Your task to perform on an android device: Add acer predator to the cart on costco.com, then select checkout. Image 0: 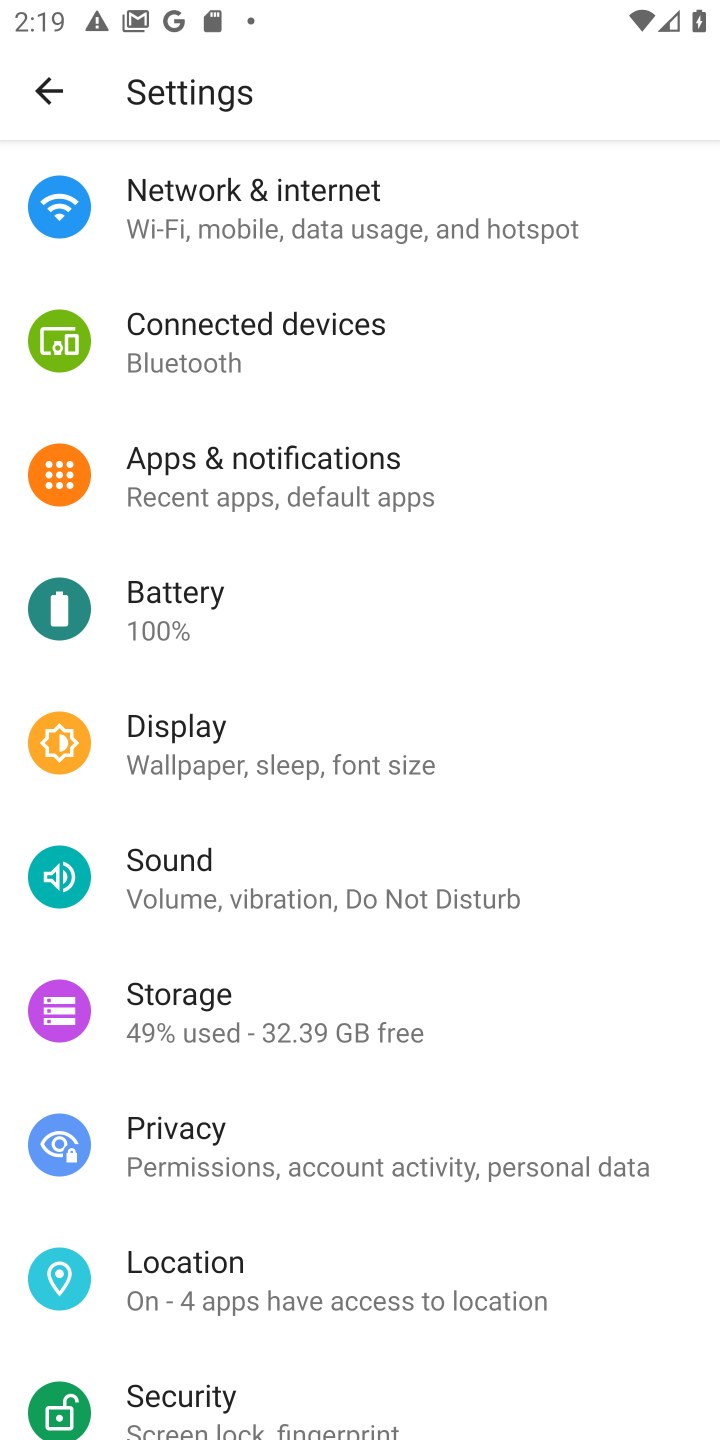
Step 0: press home button
Your task to perform on an android device: Add acer predator to the cart on costco.com, then select checkout. Image 1: 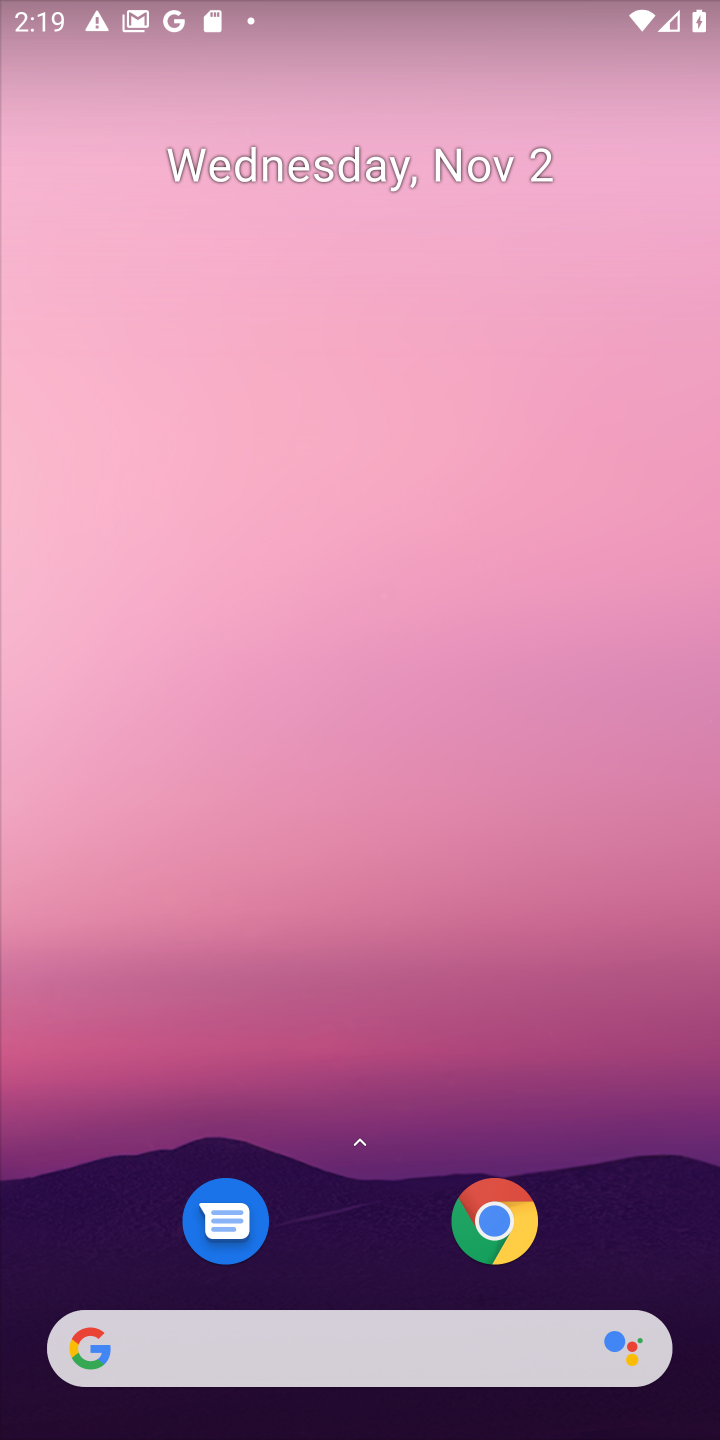
Step 1: click (363, 1367)
Your task to perform on an android device: Add acer predator to the cart on costco.com, then select checkout. Image 2: 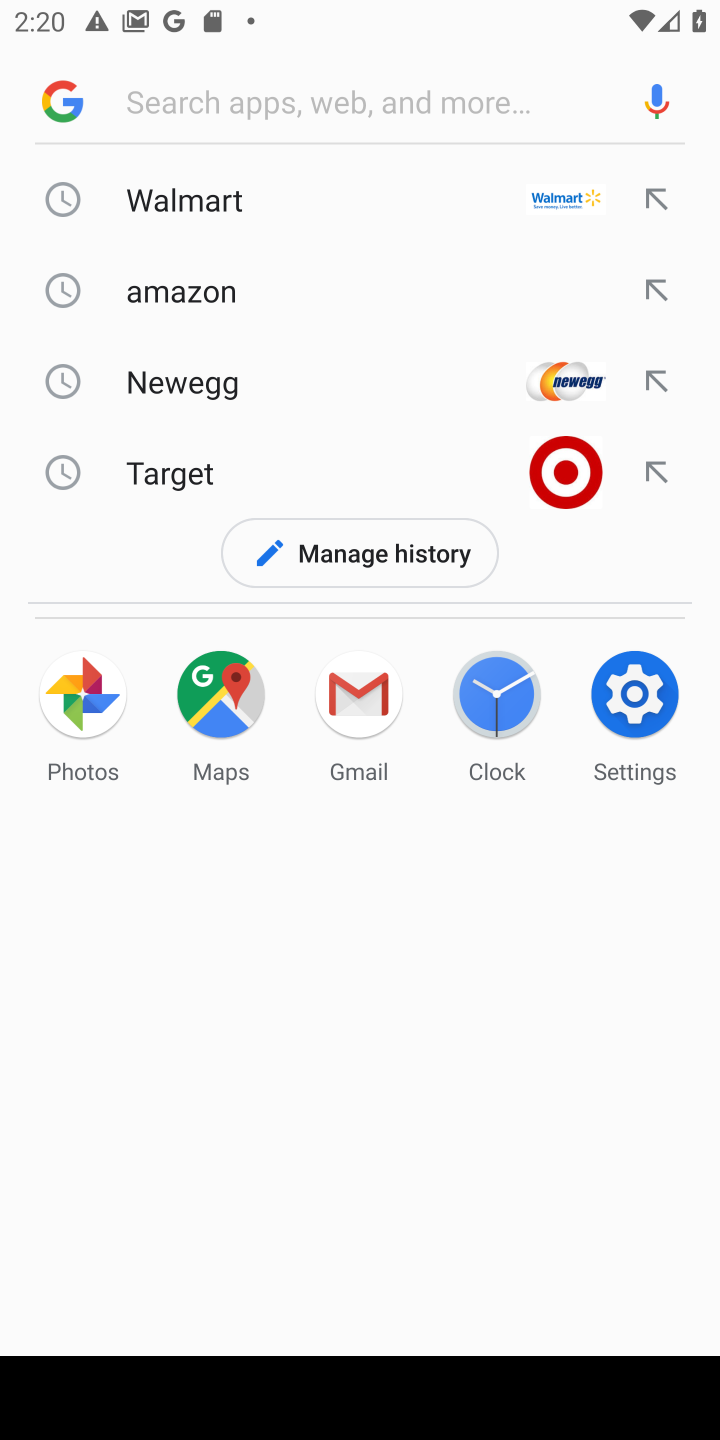
Step 2: type "costco"
Your task to perform on an android device: Add acer predator to the cart on costco.com, then select checkout. Image 3: 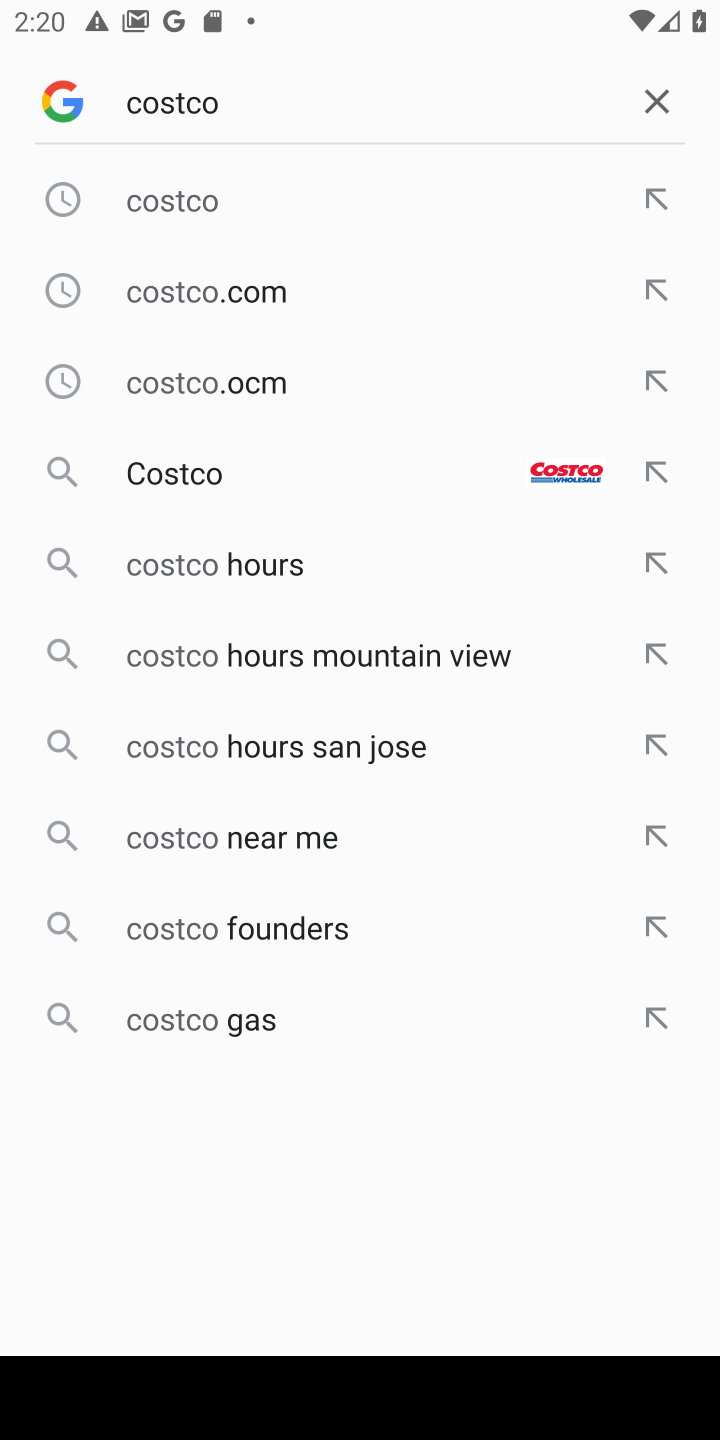
Step 3: click (373, 474)
Your task to perform on an android device: Add acer predator to the cart on costco.com, then select checkout. Image 4: 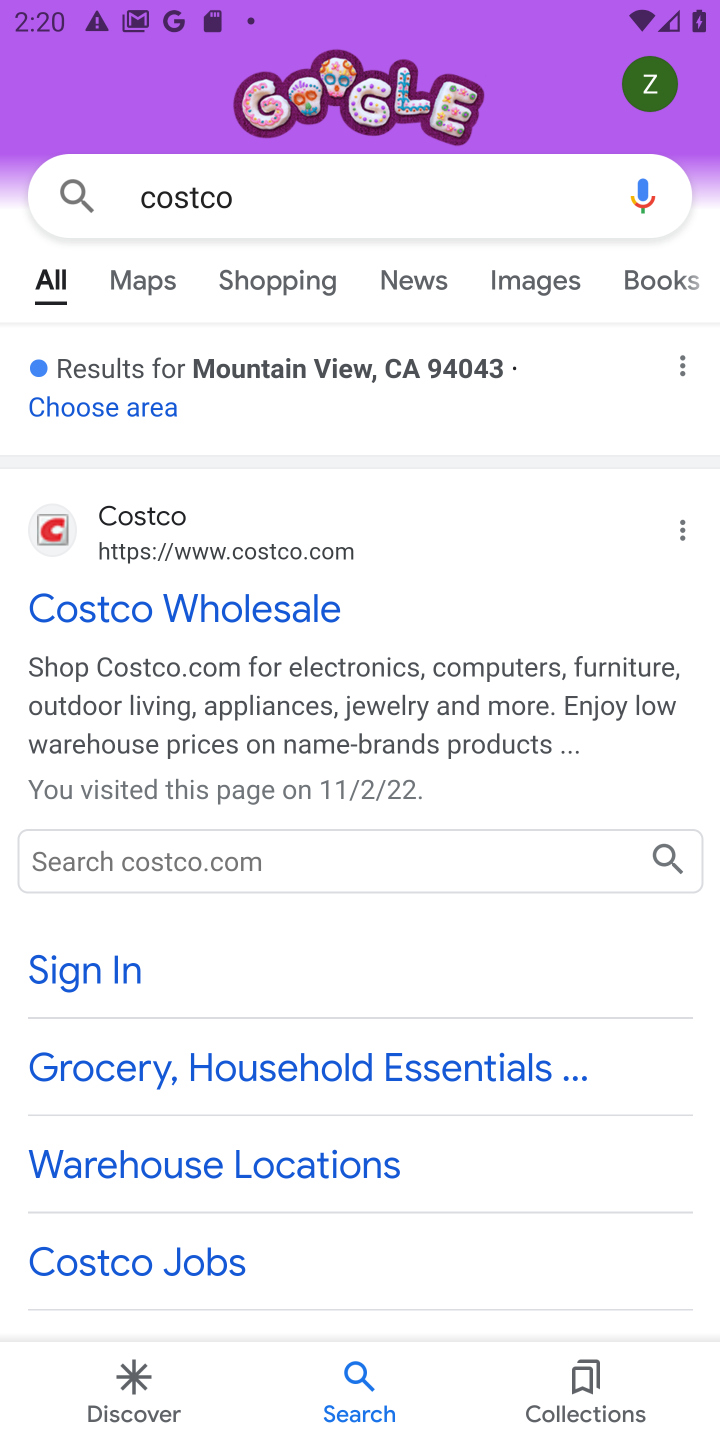
Step 4: click (305, 615)
Your task to perform on an android device: Add acer predator to the cart on costco.com, then select checkout. Image 5: 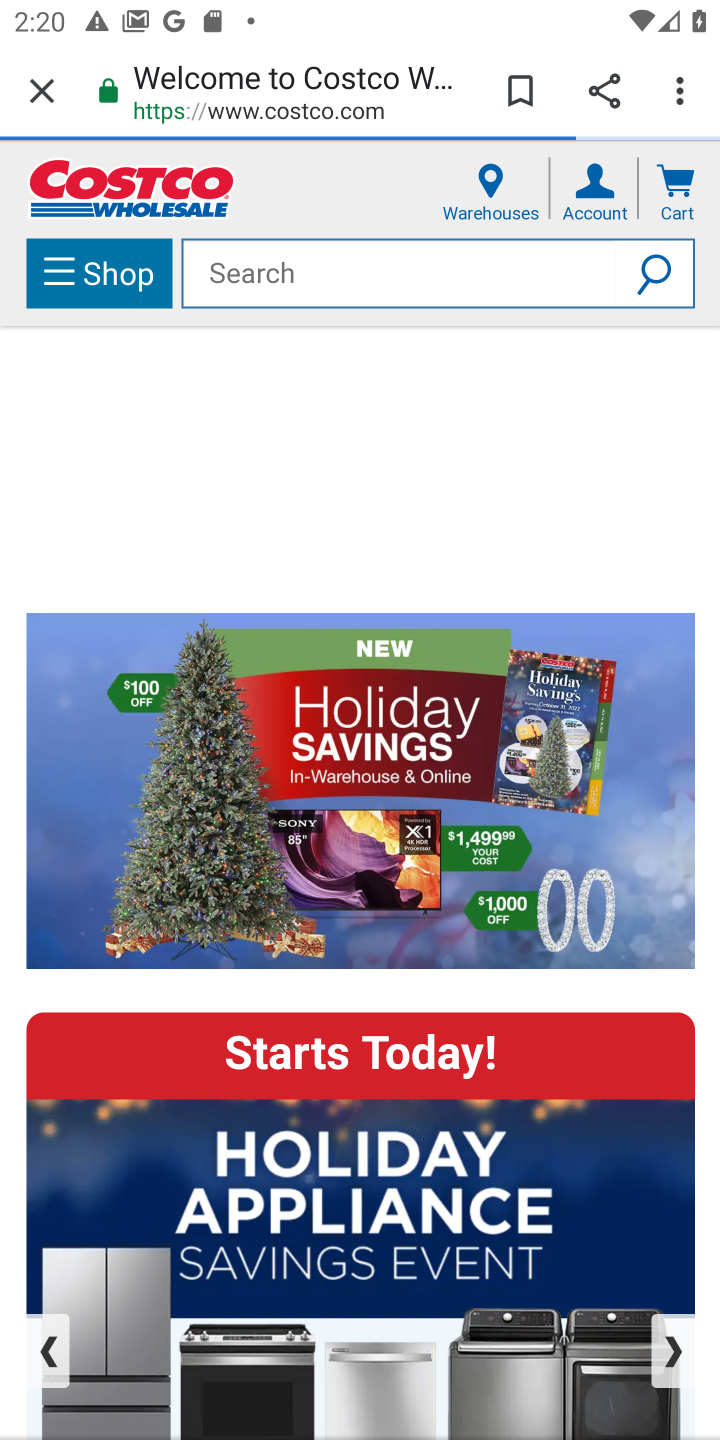
Step 5: click (376, 280)
Your task to perform on an android device: Add acer predator to the cart on costco.com, then select checkout. Image 6: 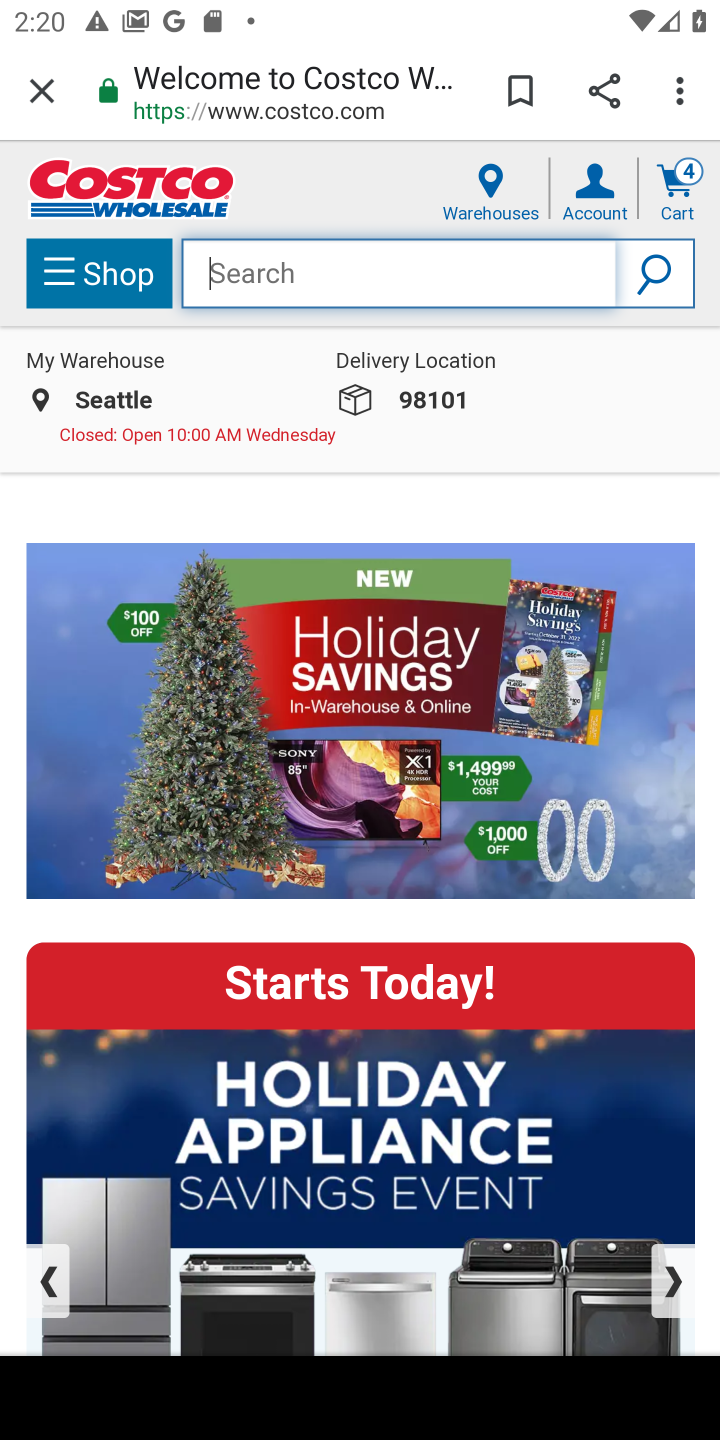
Step 6: task complete